Your task to perform on an android device: When is my next meeting? Image 0: 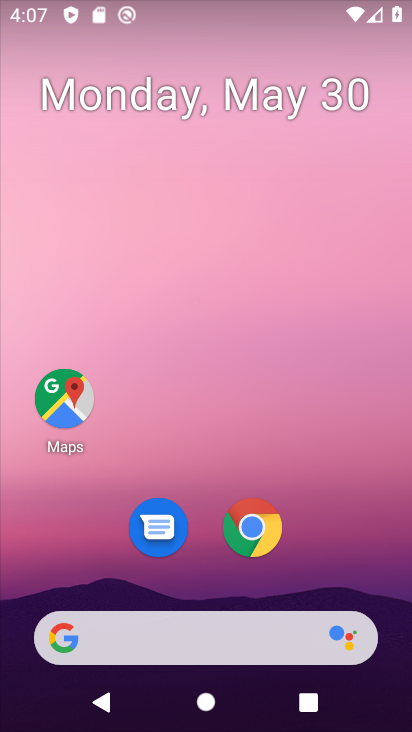
Step 0: drag from (235, 706) to (234, 72)
Your task to perform on an android device: When is my next meeting? Image 1: 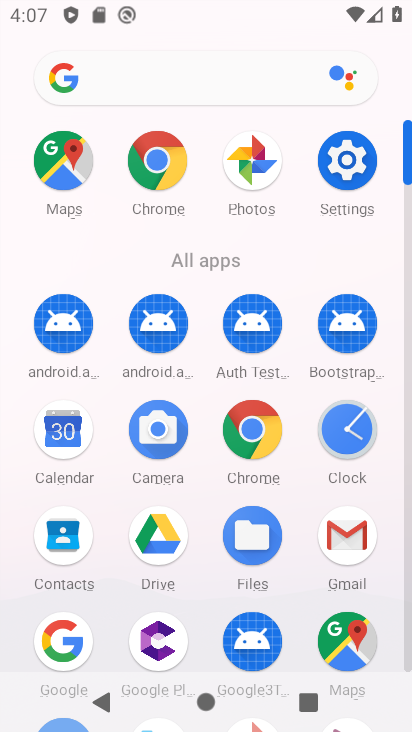
Step 1: click (62, 434)
Your task to perform on an android device: When is my next meeting? Image 2: 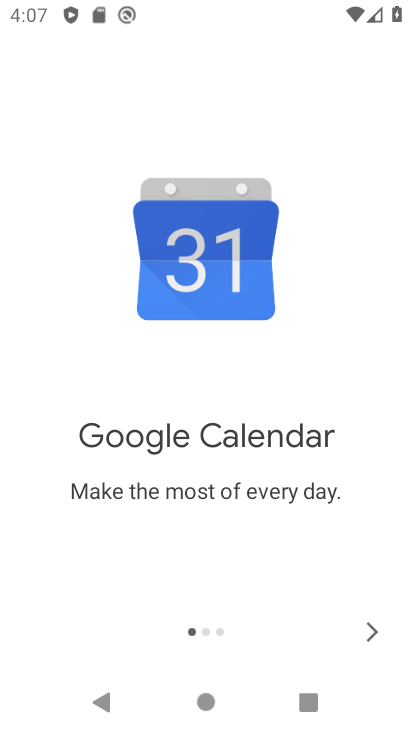
Step 2: click (370, 627)
Your task to perform on an android device: When is my next meeting? Image 3: 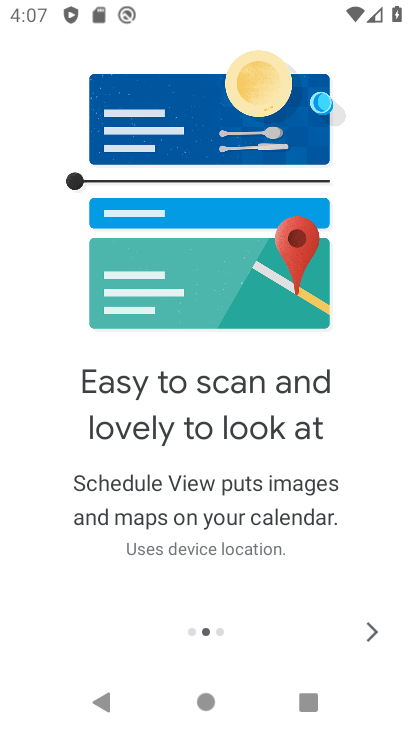
Step 3: click (369, 625)
Your task to perform on an android device: When is my next meeting? Image 4: 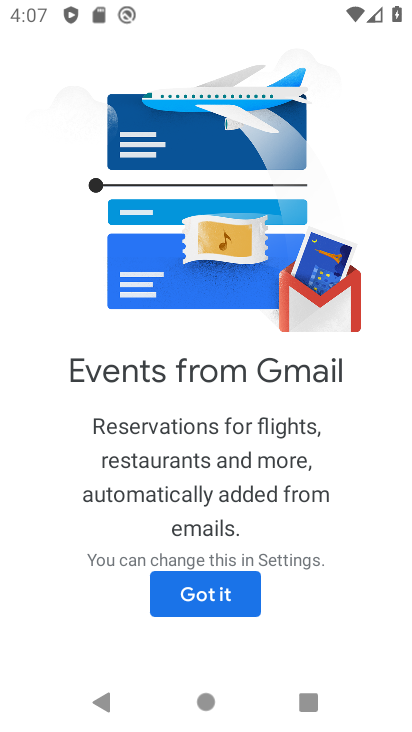
Step 4: click (212, 594)
Your task to perform on an android device: When is my next meeting? Image 5: 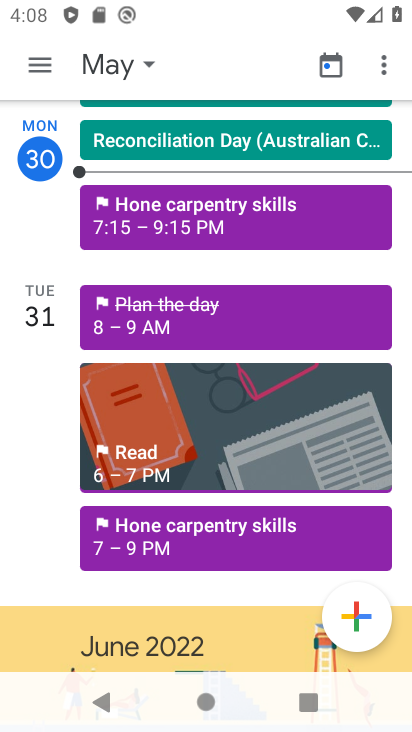
Step 5: click (130, 62)
Your task to perform on an android device: When is my next meeting? Image 6: 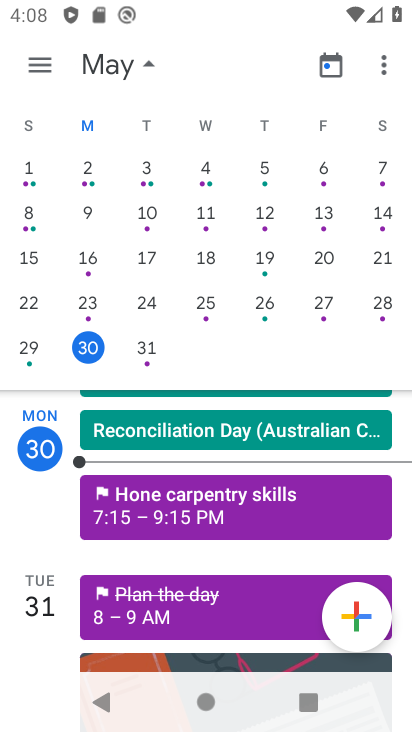
Step 6: click (142, 352)
Your task to perform on an android device: When is my next meeting? Image 7: 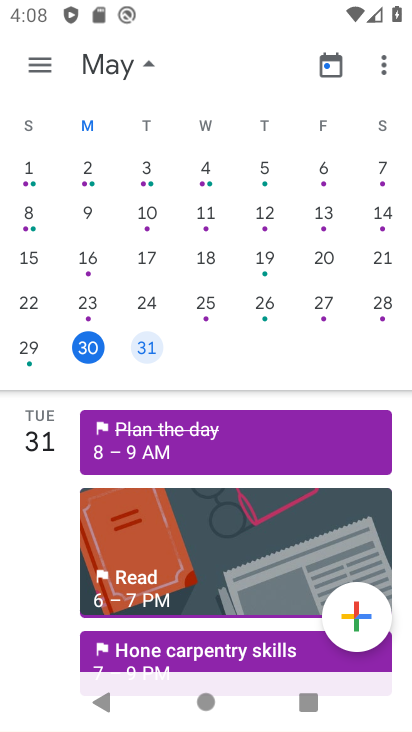
Step 7: click (148, 59)
Your task to perform on an android device: When is my next meeting? Image 8: 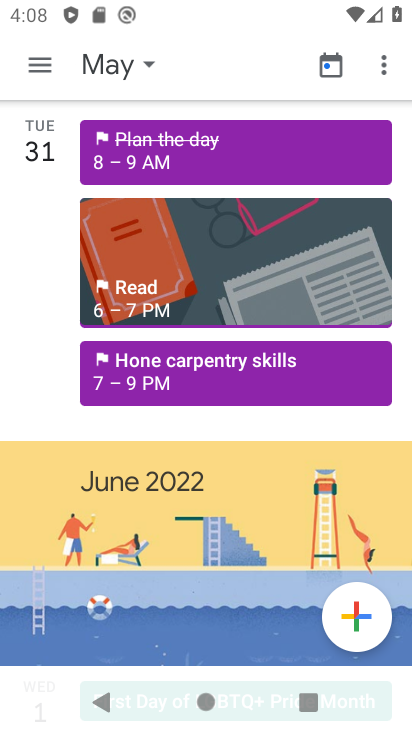
Step 8: task complete